Your task to perform on an android device: open app "Adobe Acrobat Reader" Image 0: 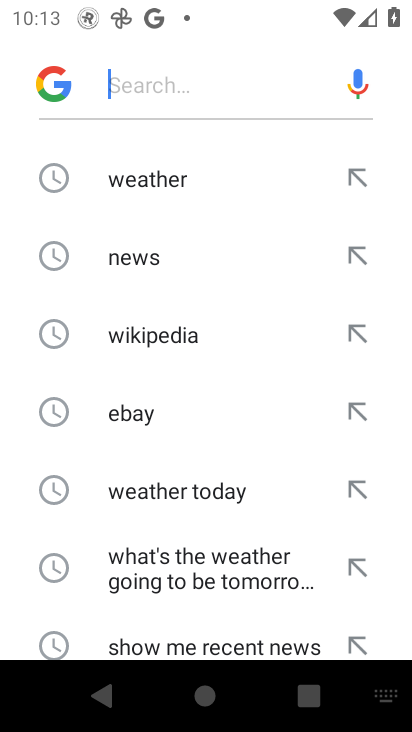
Step 0: press back button
Your task to perform on an android device: open app "Adobe Acrobat Reader" Image 1: 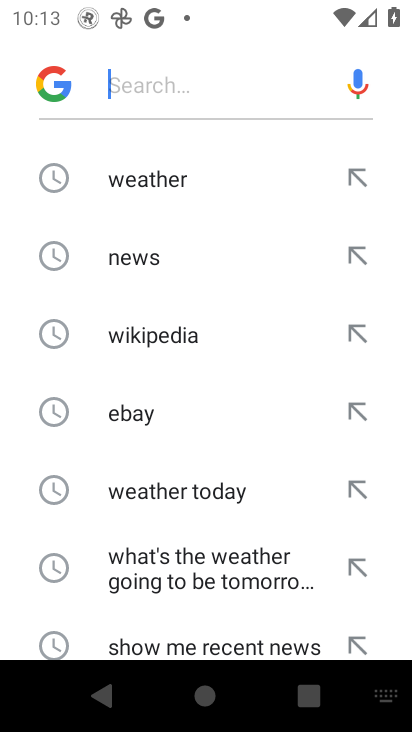
Step 1: press back button
Your task to perform on an android device: open app "Adobe Acrobat Reader" Image 2: 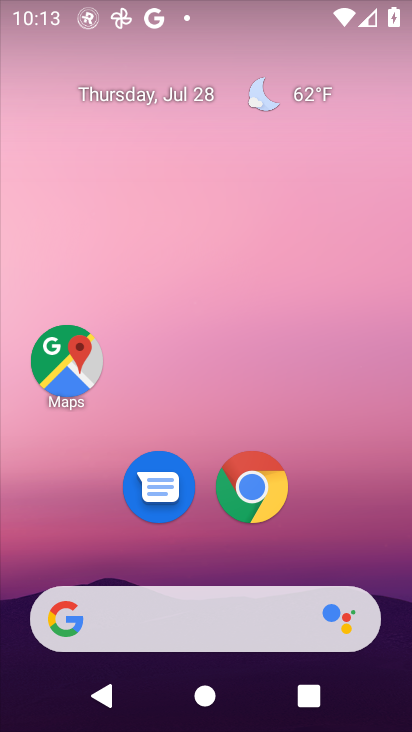
Step 2: drag from (255, 581) to (239, 171)
Your task to perform on an android device: open app "Adobe Acrobat Reader" Image 3: 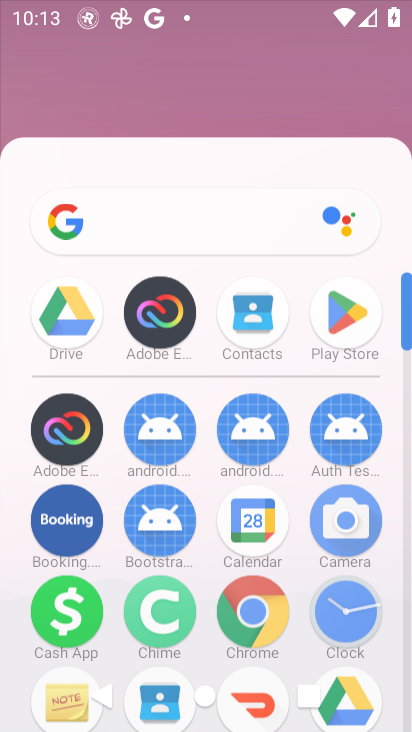
Step 3: drag from (289, 589) to (243, 158)
Your task to perform on an android device: open app "Adobe Acrobat Reader" Image 4: 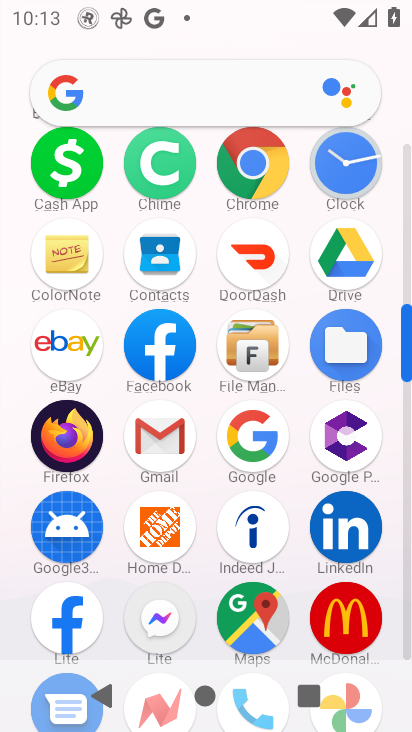
Step 4: drag from (290, 213) to (290, 403)
Your task to perform on an android device: open app "Adobe Acrobat Reader" Image 5: 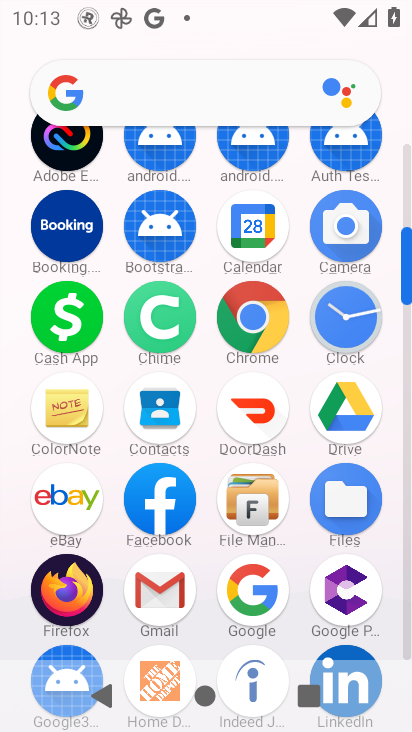
Step 5: drag from (281, 258) to (281, 452)
Your task to perform on an android device: open app "Adobe Acrobat Reader" Image 6: 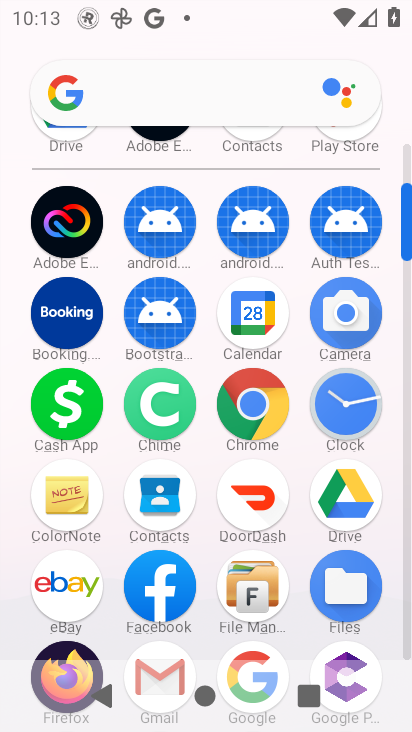
Step 6: drag from (265, 278) to (317, 603)
Your task to perform on an android device: open app "Adobe Acrobat Reader" Image 7: 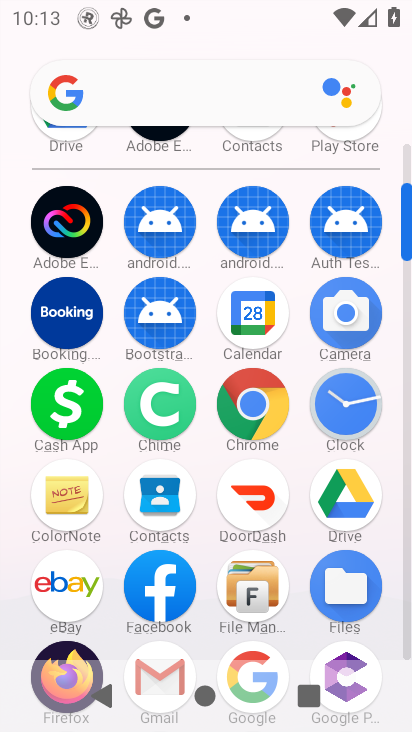
Step 7: drag from (306, 257) to (319, 663)
Your task to perform on an android device: open app "Adobe Acrobat Reader" Image 8: 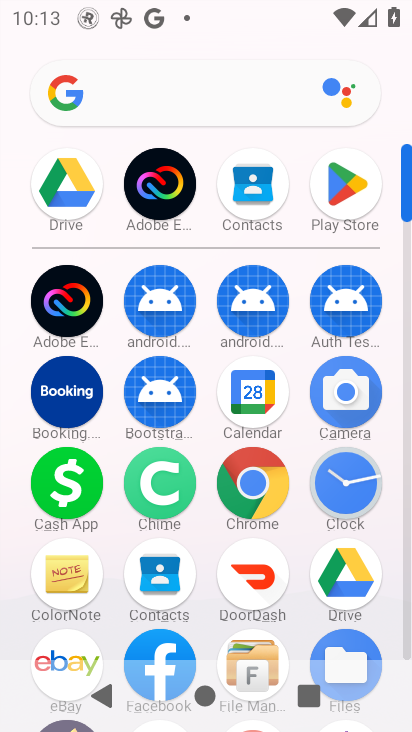
Step 8: click (338, 191)
Your task to perform on an android device: open app "Adobe Acrobat Reader" Image 9: 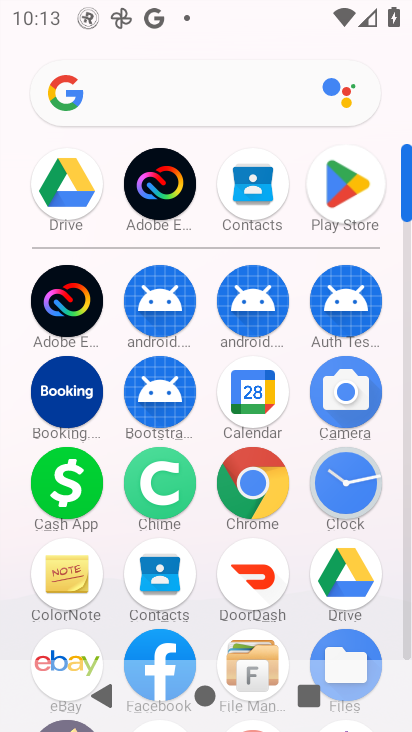
Step 9: click (331, 186)
Your task to perform on an android device: open app "Adobe Acrobat Reader" Image 10: 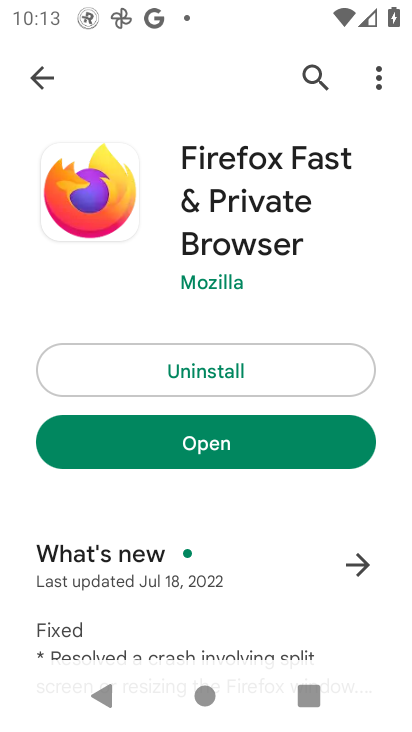
Step 10: click (34, 79)
Your task to perform on an android device: open app "Adobe Acrobat Reader" Image 11: 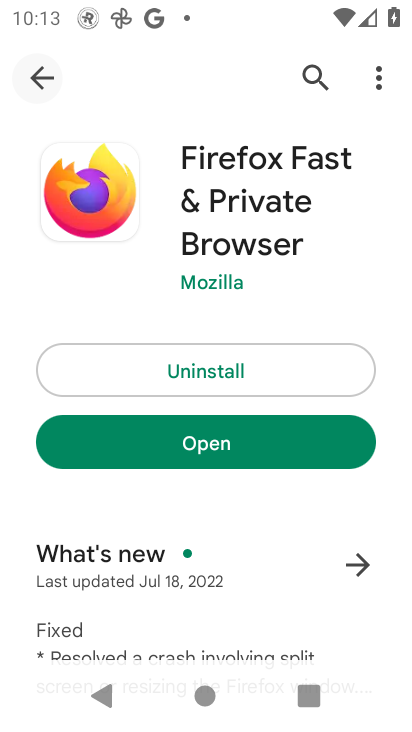
Step 11: click (34, 79)
Your task to perform on an android device: open app "Adobe Acrobat Reader" Image 12: 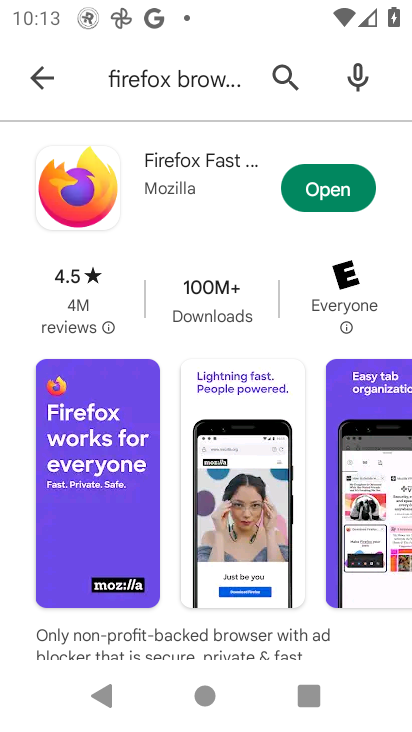
Step 12: click (33, 78)
Your task to perform on an android device: open app "Adobe Acrobat Reader" Image 13: 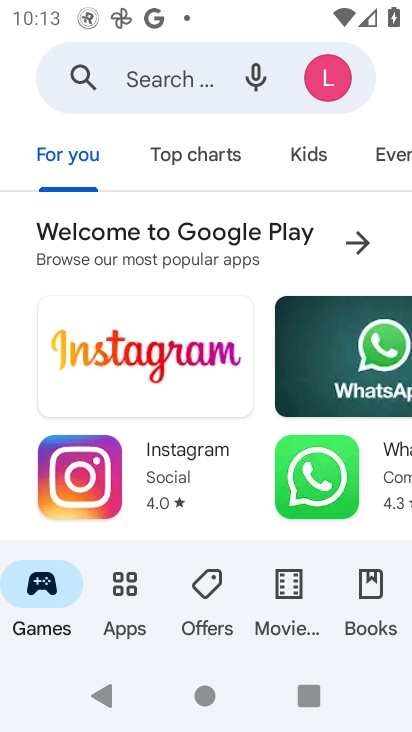
Step 13: click (125, 83)
Your task to perform on an android device: open app "Adobe Acrobat Reader" Image 14: 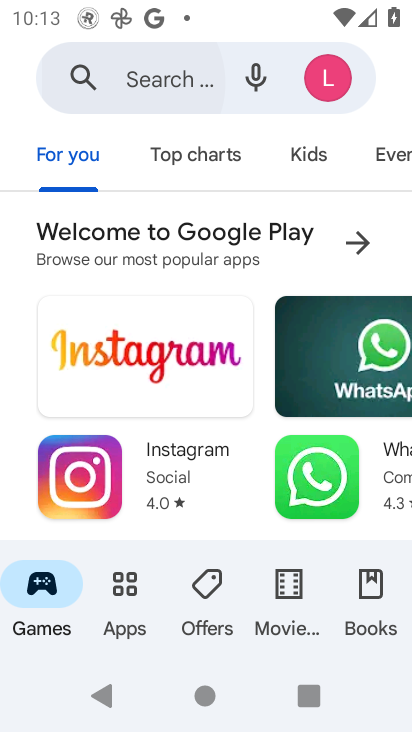
Step 14: click (123, 82)
Your task to perform on an android device: open app "Adobe Acrobat Reader" Image 15: 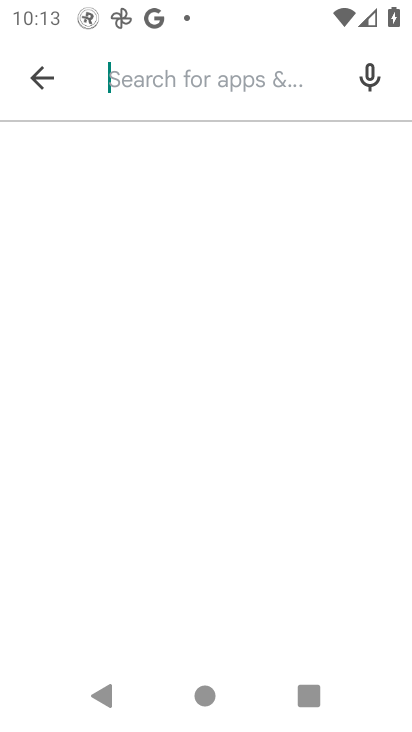
Step 15: click (123, 82)
Your task to perform on an android device: open app "Adobe Acrobat Reader" Image 16: 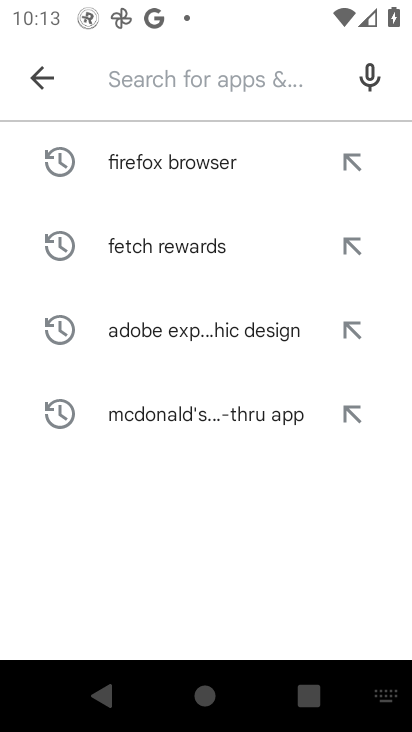
Step 16: type "Adobe Acrobat Reader"
Your task to perform on an android device: open app "Adobe Acrobat Reader" Image 17: 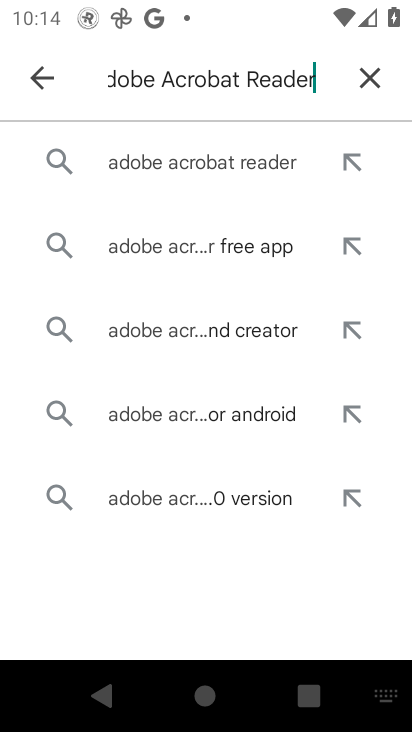
Step 17: click (254, 160)
Your task to perform on an android device: open app "Adobe Acrobat Reader" Image 18: 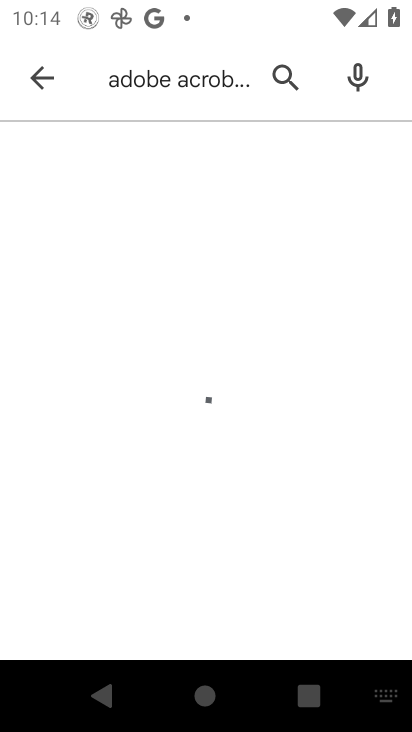
Step 18: click (253, 159)
Your task to perform on an android device: open app "Adobe Acrobat Reader" Image 19: 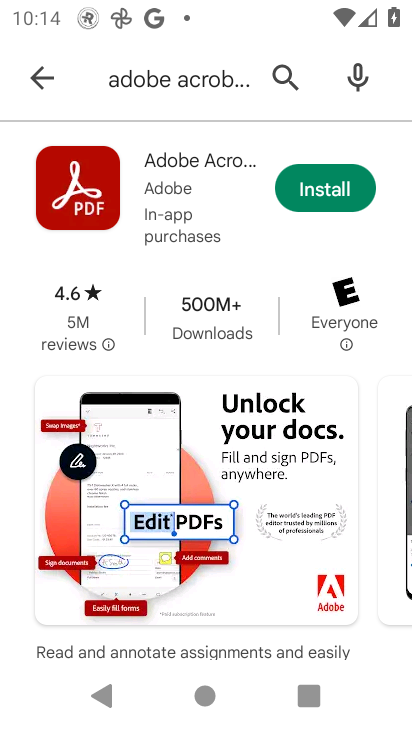
Step 19: click (327, 185)
Your task to perform on an android device: open app "Adobe Acrobat Reader" Image 20: 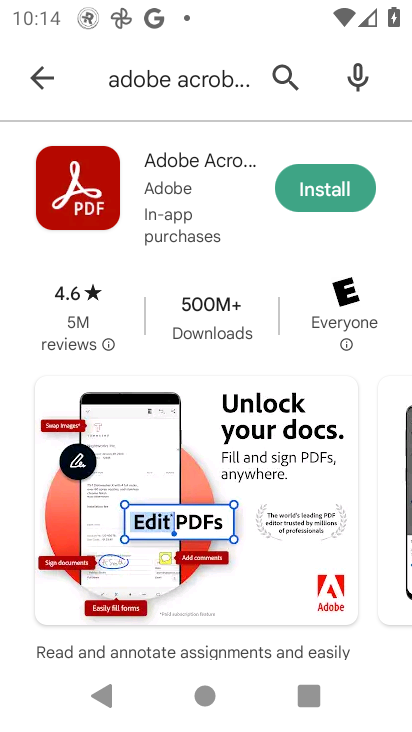
Step 20: click (329, 185)
Your task to perform on an android device: open app "Adobe Acrobat Reader" Image 21: 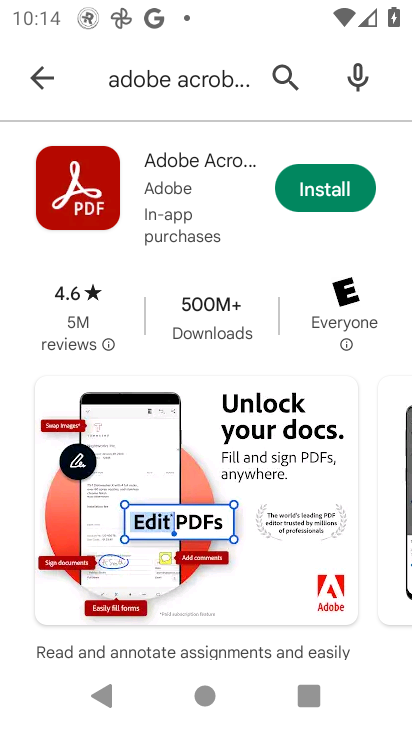
Step 21: click (332, 182)
Your task to perform on an android device: open app "Adobe Acrobat Reader" Image 22: 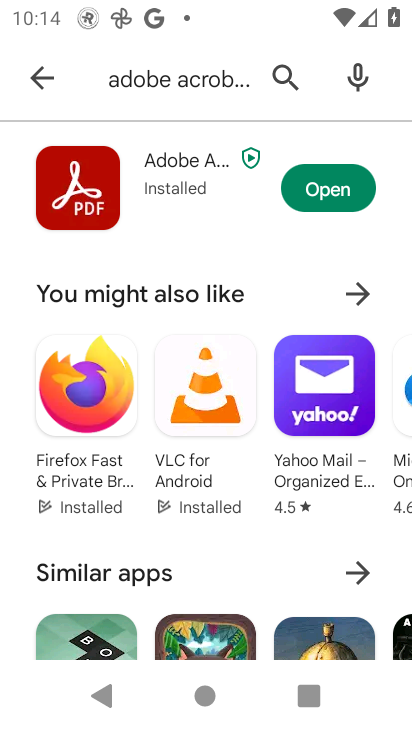
Step 22: click (325, 186)
Your task to perform on an android device: open app "Adobe Acrobat Reader" Image 23: 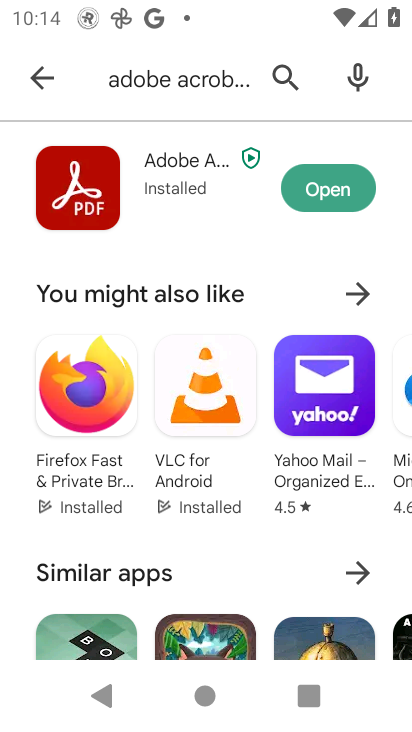
Step 23: click (324, 185)
Your task to perform on an android device: open app "Adobe Acrobat Reader" Image 24: 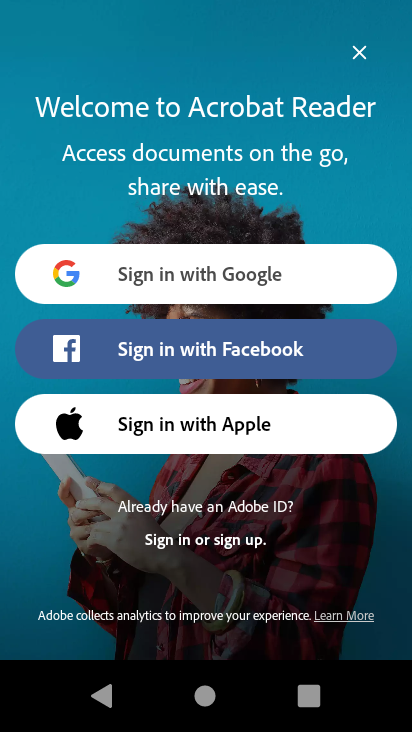
Step 24: task complete